Your task to perform on an android device: Search for sushi restaurants on Maps Image 0: 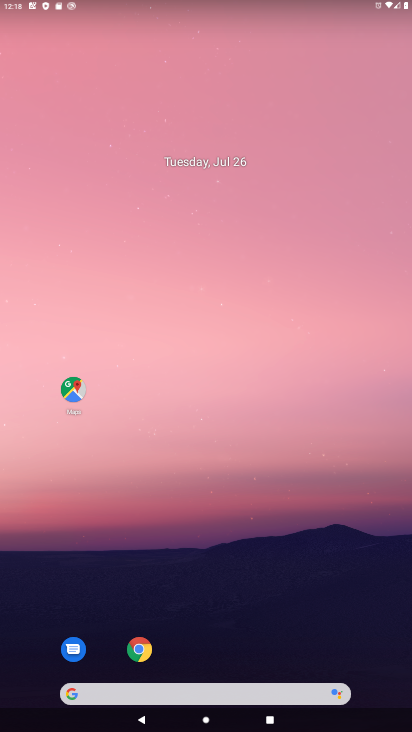
Step 0: drag from (222, 706) to (226, 65)
Your task to perform on an android device: Search for sushi restaurants on Maps Image 1: 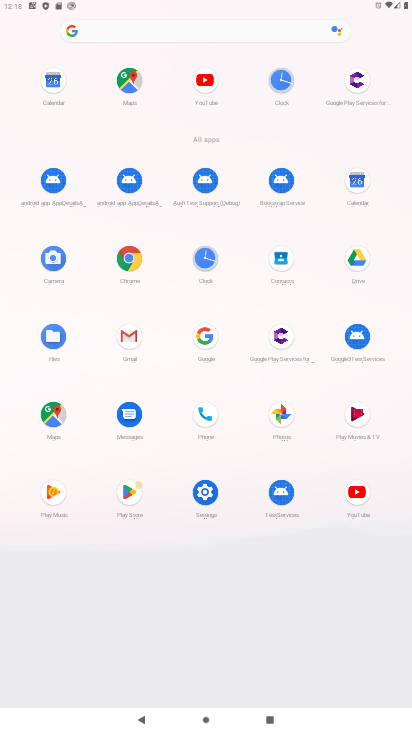
Step 1: click (53, 412)
Your task to perform on an android device: Search for sushi restaurants on Maps Image 2: 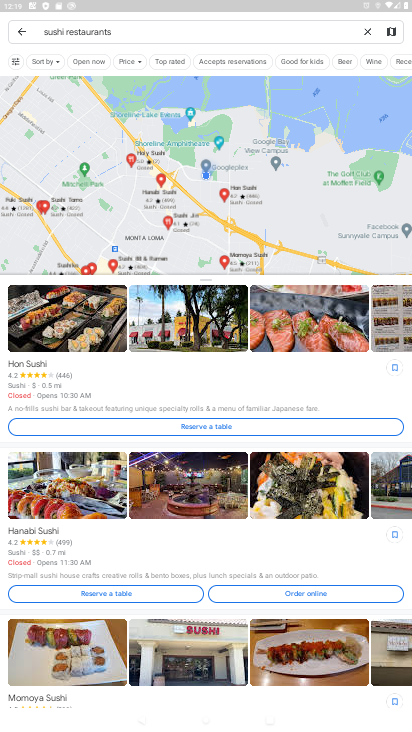
Step 2: task complete